Your task to perform on an android device: Open Reddit.com Image 0: 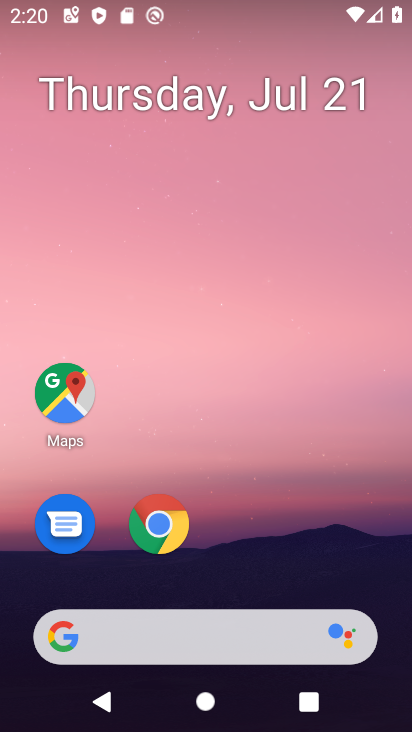
Step 0: click (235, 633)
Your task to perform on an android device: Open Reddit.com Image 1: 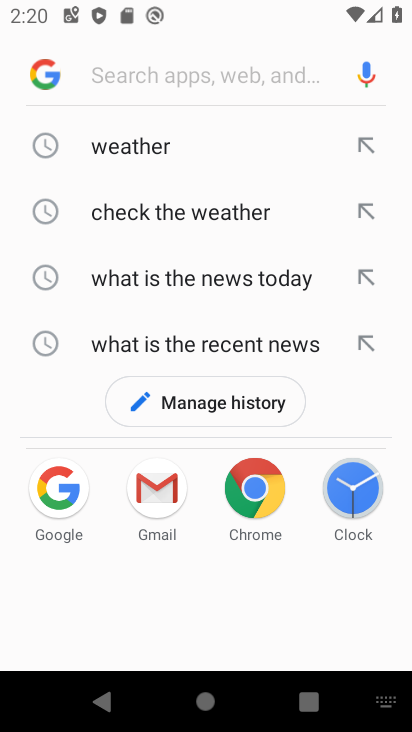
Step 1: type "reddit.com"
Your task to perform on an android device: Open Reddit.com Image 2: 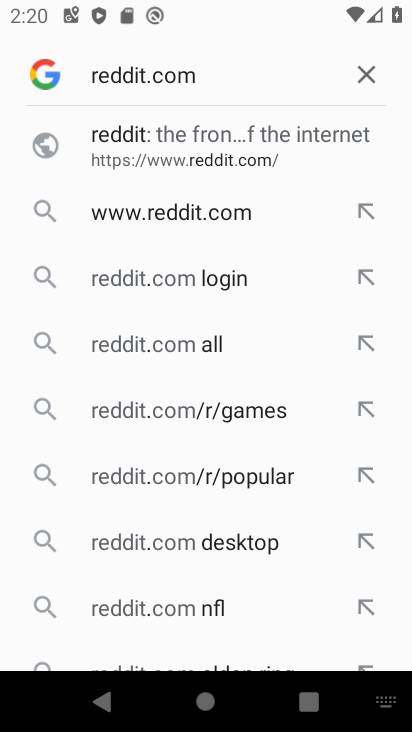
Step 2: click (233, 213)
Your task to perform on an android device: Open Reddit.com Image 3: 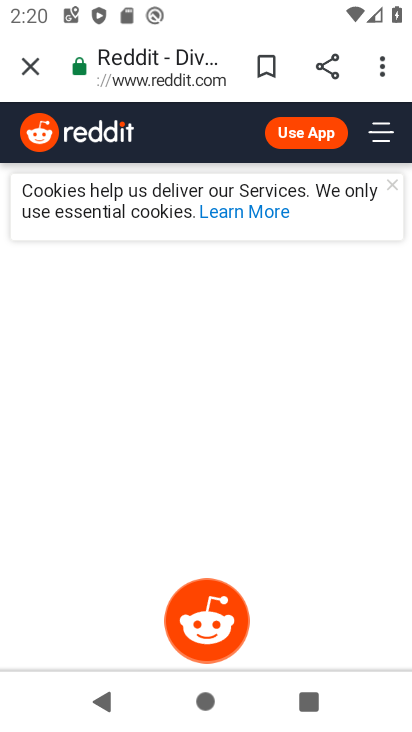
Step 3: task complete